Your task to perform on an android device: make emails show in primary in the gmail app Image 0: 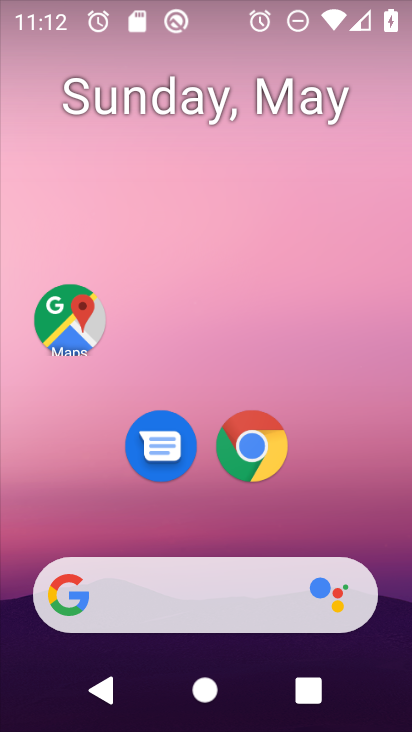
Step 0: drag from (365, 491) to (240, 17)
Your task to perform on an android device: make emails show in primary in the gmail app Image 1: 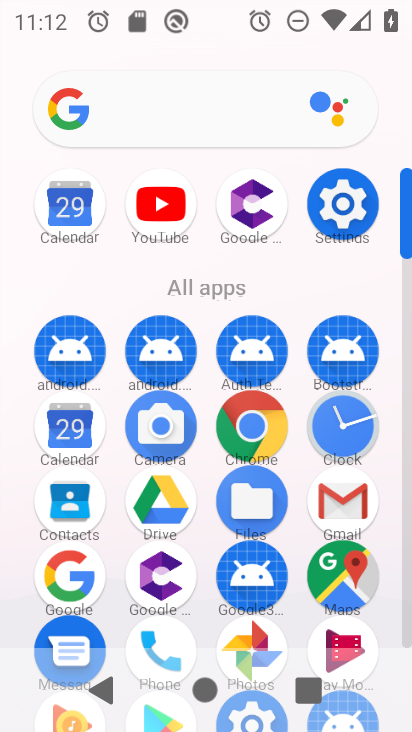
Step 1: drag from (16, 574) to (25, 180)
Your task to perform on an android device: make emails show in primary in the gmail app Image 2: 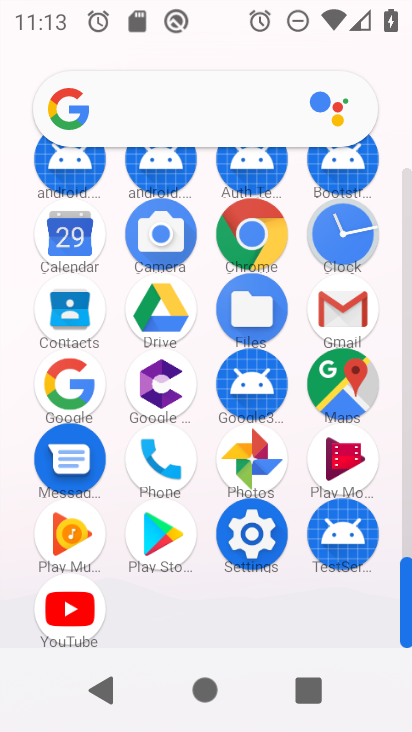
Step 2: click (341, 302)
Your task to perform on an android device: make emails show in primary in the gmail app Image 3: 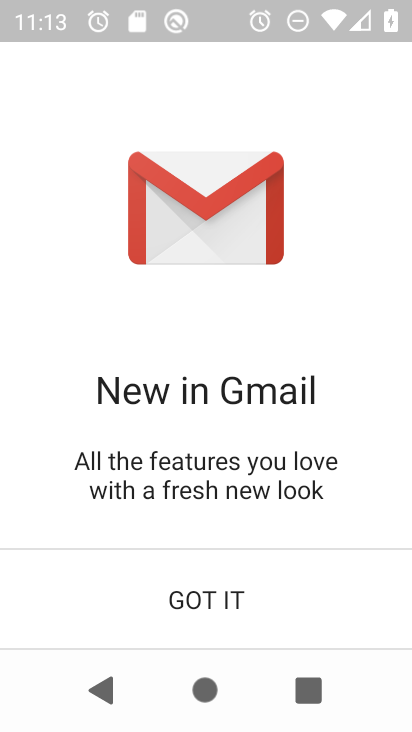
Step 3: click (211, 600)
Your task to perform on an android device: make emails show in primary in the gmail app Image 4: 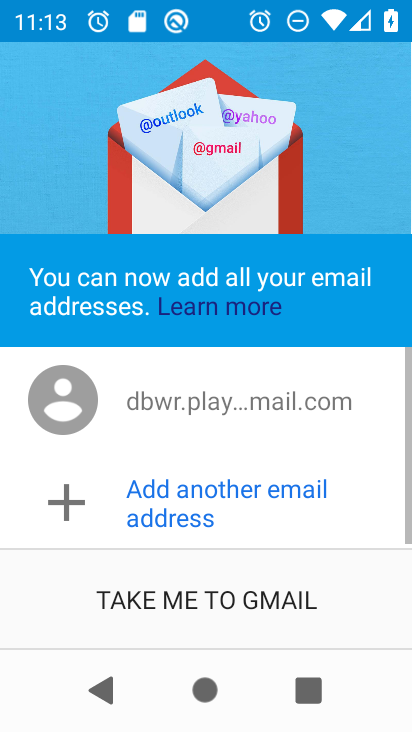
Step 4: click (211, 600)
Your task to perform on an android device: make emails show in primary in the gmail app Image 5: 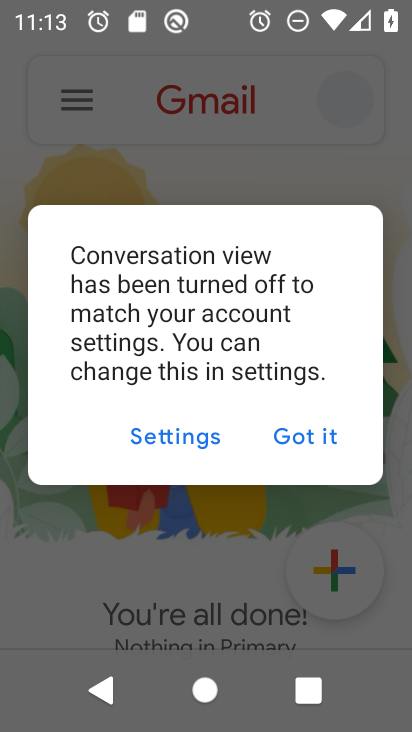
Step 5: click (306, 442)
Your task to perform on an android device: make emails show in primary in the gmail app Image 6: 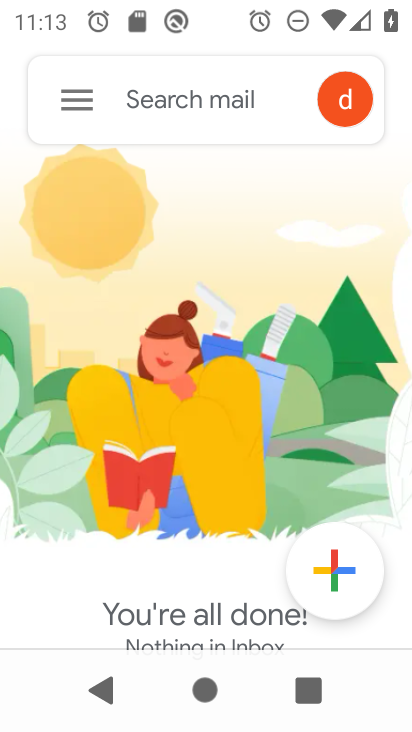
Step 6: click (68, 89)
Your task to perform on an android device: make emails show in primary in the gmail app Image 7: 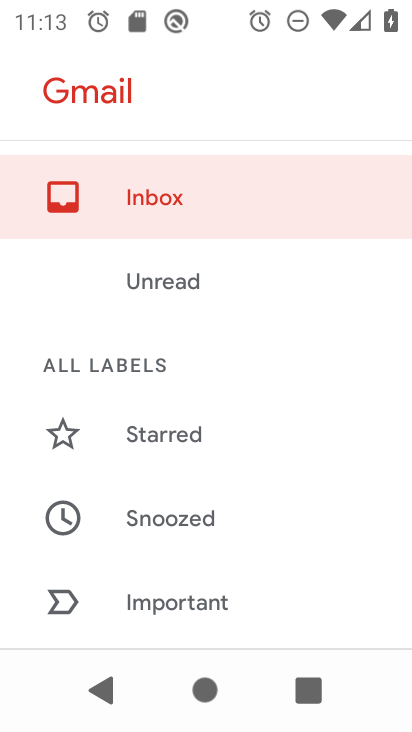
Step 7: drag from (229, 594) to (266, 146)
Your task to perform on an android device: make emails show in primary in the gmail app Image 8: 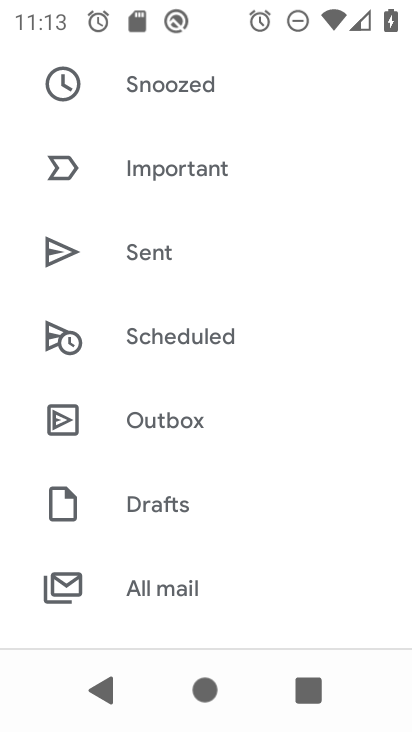
Step 8: drag from (247, 538) to (255, 156)
Your task to perform on an android device: make emails show in primary in the gmail app Image 9: 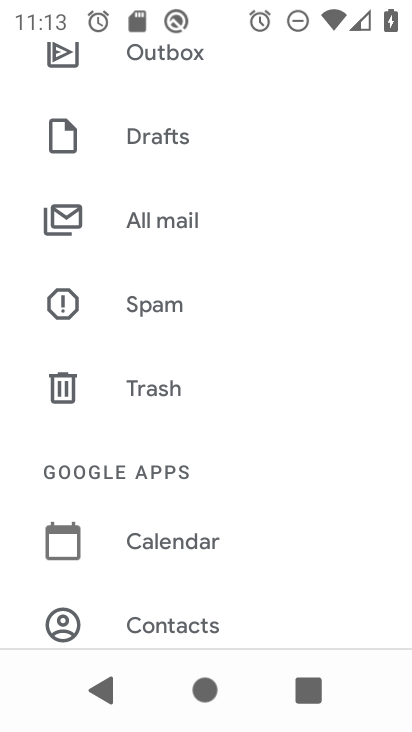
Step 9: drag from (232, 526) to (254, 121)
Your task to perform on an android device: make emails show in primary in the gmail app Image 10: 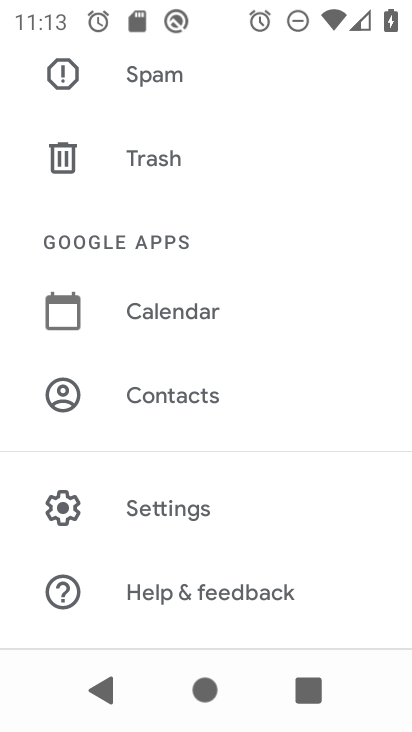
Step 10: drag from (224, 441) to (233, 135)
Your task to perform on an android device: make emails show in primary in the gmail app Image 11: 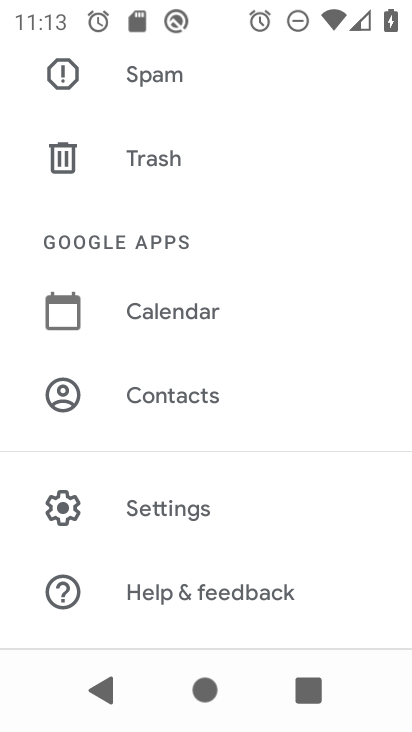
Step 11: drag from (306, 457) to (300, 95)
Your task to perform on an android device: make emails show in primary in the gmail app Image 12: 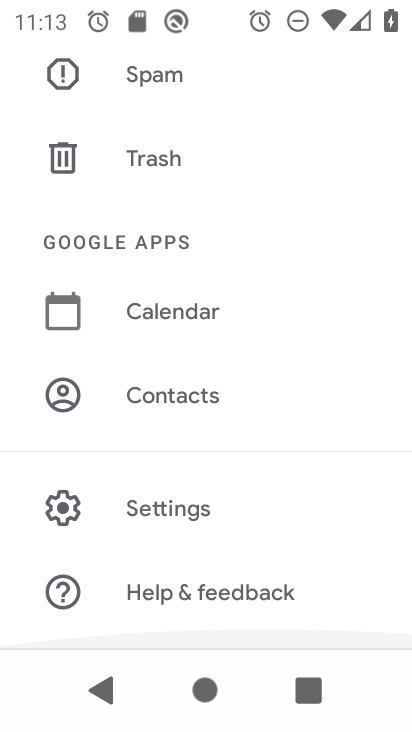
Step 12: drag from (283, 220) to (289, 613)
Your task to perform on an android device: make emails show in primary in the gmail app Image 13: 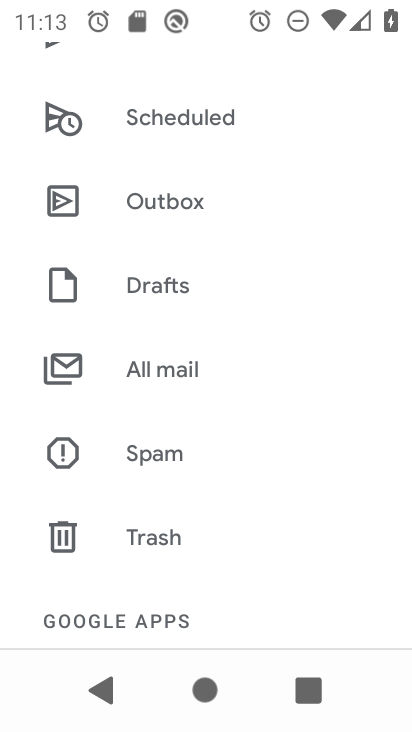
Step 13: drag from (255, 458) to (259, 59)
Your task to perform on an android device: make emails show in primary in the gmail app Image 14: 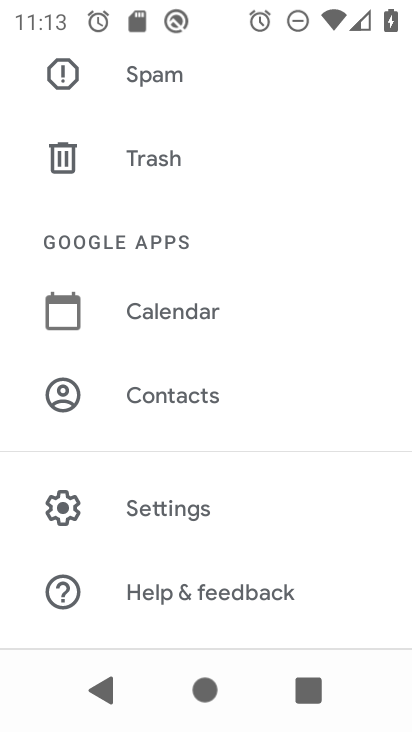
Step 14: click (162, 509)
Your task to perform on an android device: make emails show in primary in the gmail app Image 15: 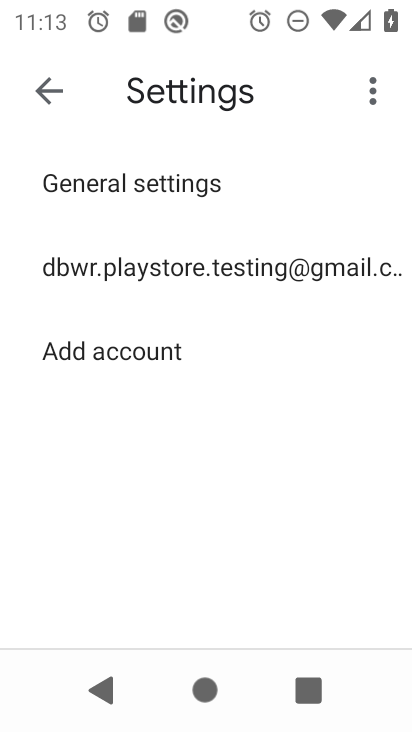
Step 15: click (155, 276)
Your task to perform on an android device: make emails show in primary in the gmail app Image 16: 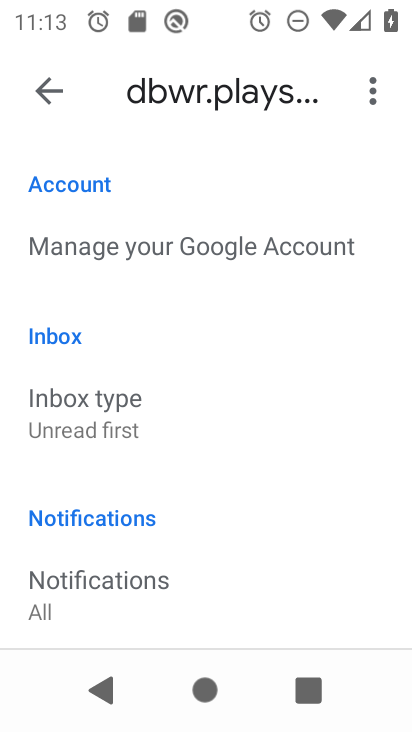
Step 16: click (155, 409)
Your task to perform on an android device: make emails show in primary in the gmail app Image 17: 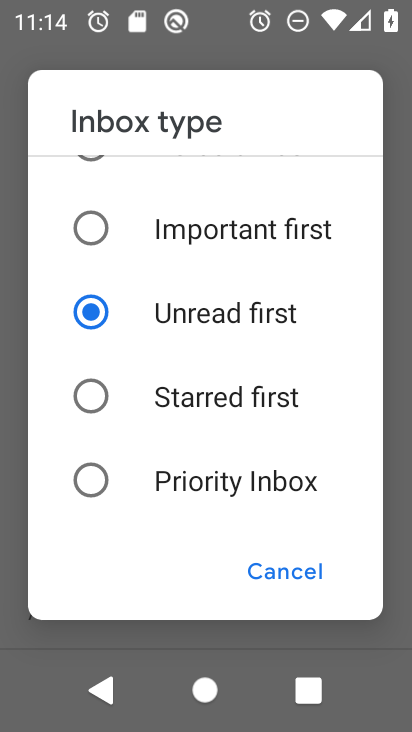
Step 17: click (206, 202)
Your task to perform on an android device: make emails show in primary in the gmail app Image 18: 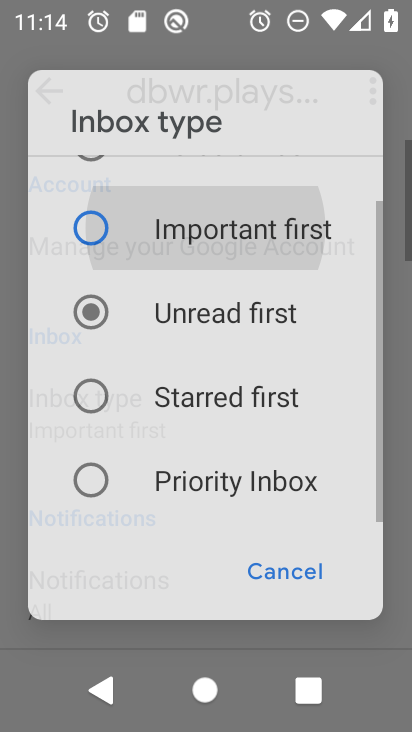
Step 18: click (208, 544)
Your task to perform on an android device: make emails show in primary in the gmail app Image 19: 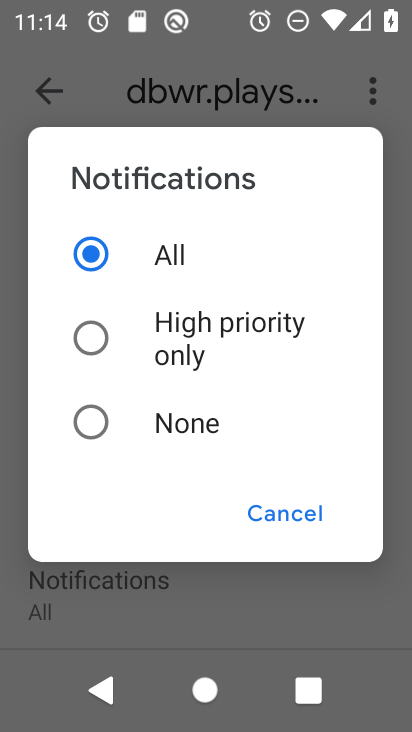
Step 19: click (268, 507)
Your task to perform on an android device: make emails show in primary in the gmail app Image 20: 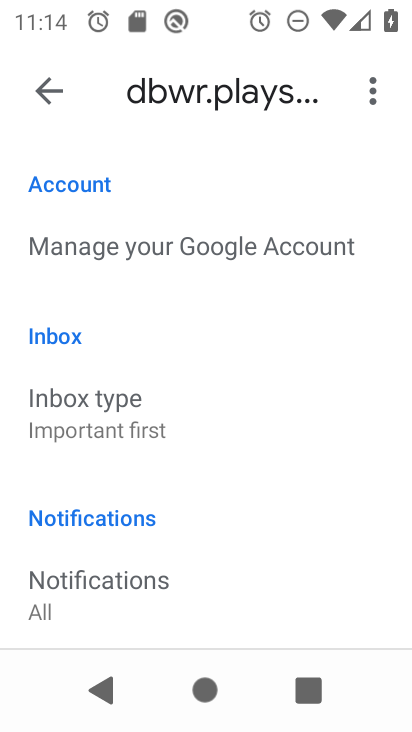
Step 20: click (116, 402)
Your task to perform on an android device: make emails show in primary in the gmail app Image 21: 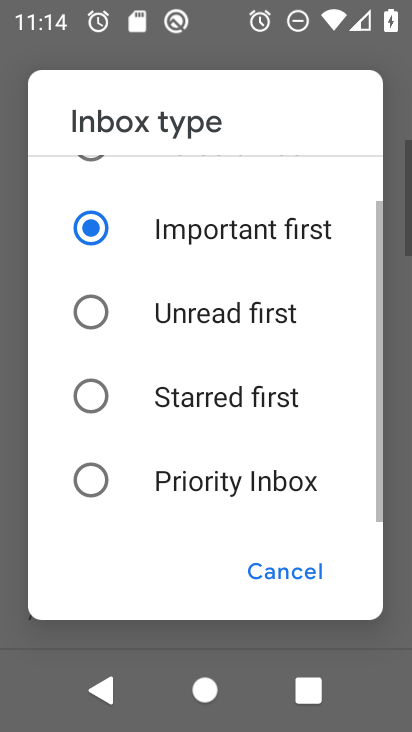
Step 21: drag from (243, 243) to (236, 548)
Your task to perform on an android device: make emails show in primary in the gmail app Image 22: 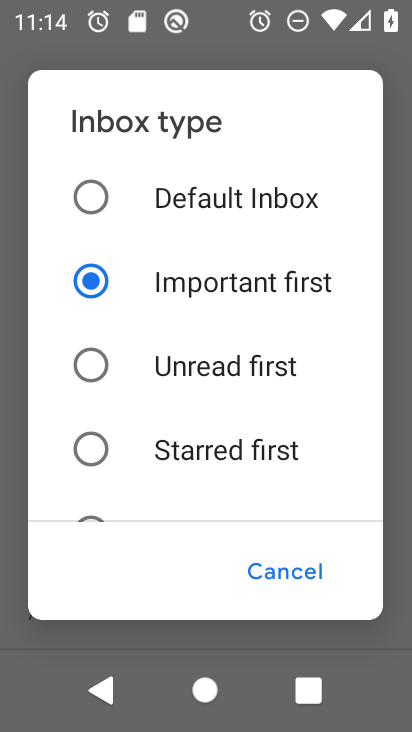
Step 22: click (206, 197)
Your task to perform on an android device: make emails show in primary in the gmail app Image 23: 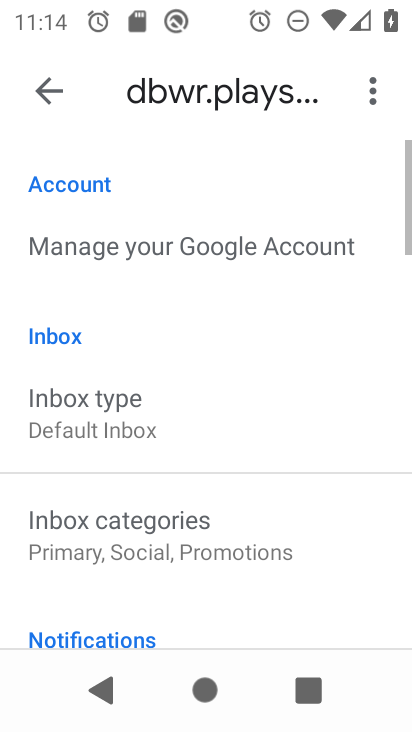
Step 23: click (156, 535)
Your task to perform on an android device: make emails show in primary in the gmail app Image 24: 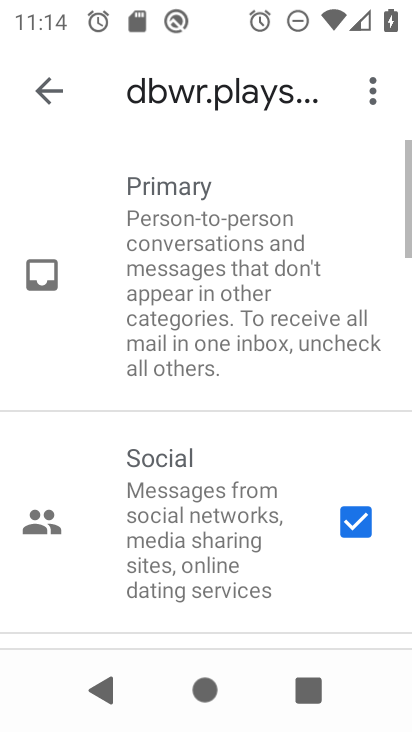
Step 24: click (356, 540)
Your task to perform on an android device: make emails show in primary in the gmail app Image 25: 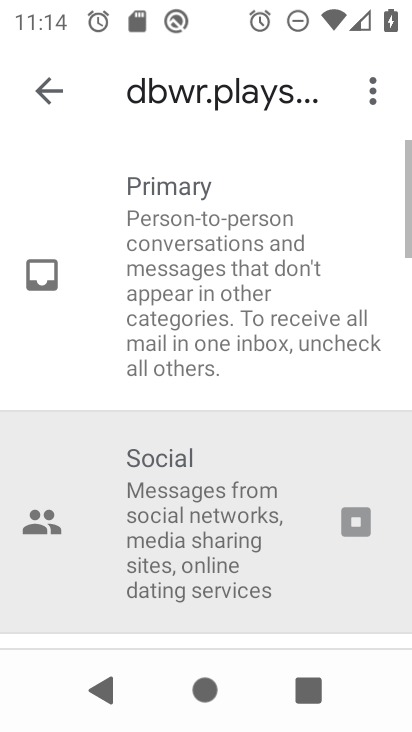
Step 25: drag from (228, 561) to (226, 123)
Your task to perform on an android device: make emails show in primary in the gmail app Image 26: 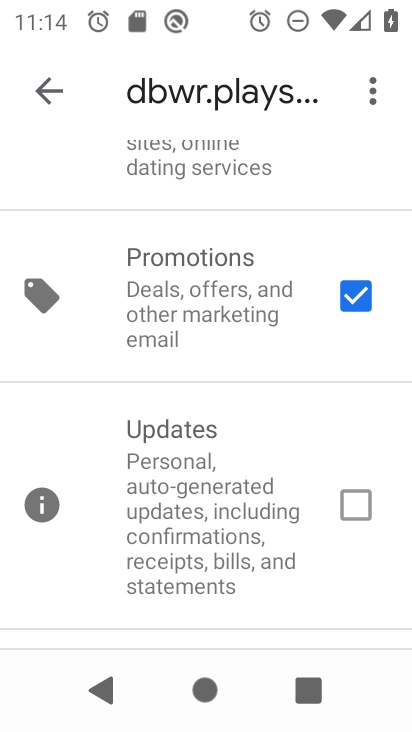
Step 26: click (341, 299)
Your task to perform on an android device: make emails show in primary in the gmail app Image 27: 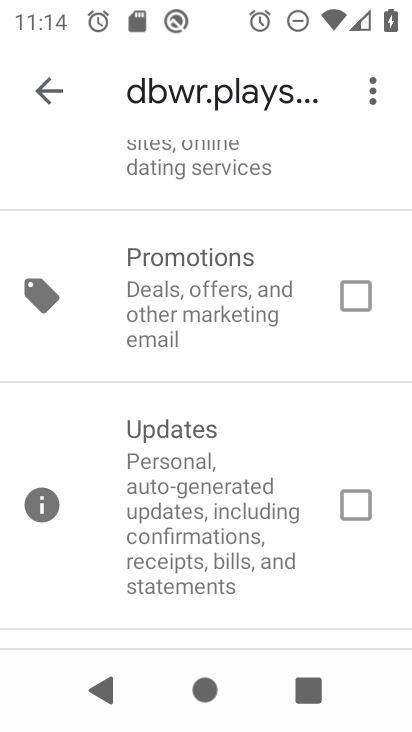
Step 27: drag from (176, 260) to (212, 618)
Your task to perform on an android device: make emails show in primary in the gmail app Image 28: 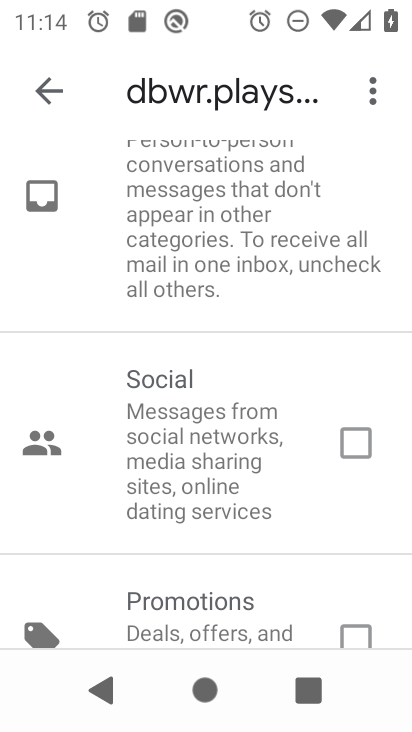
Step 28: drag from (263, 171) to (263, 499)
Your task to perform on an android device: make emails show in primary in the gmail app Image 29: 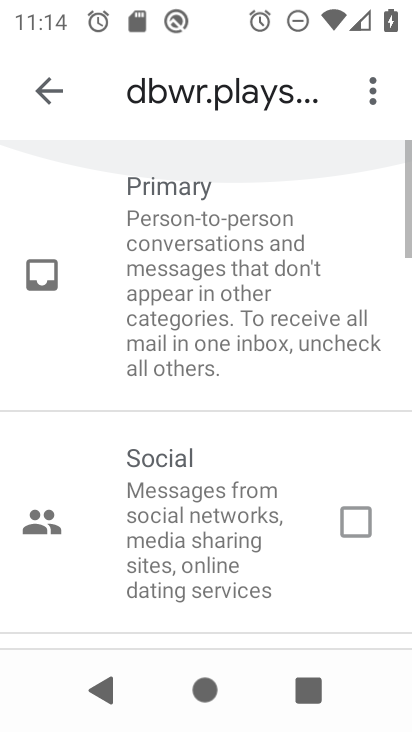
Step 29: click (263, 549)
Your task to perform on an android device: make emails show in primary in the gmail app Image 30: 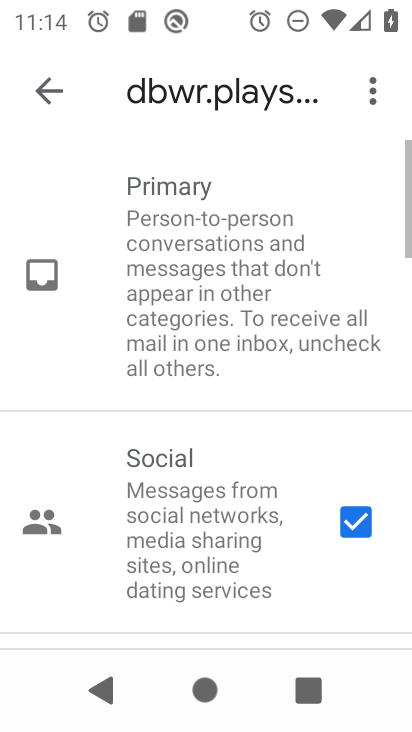
Step 30: click (340, 521)
Your task to perform on an android device: make emails show in primary in the gmail app Image 31: 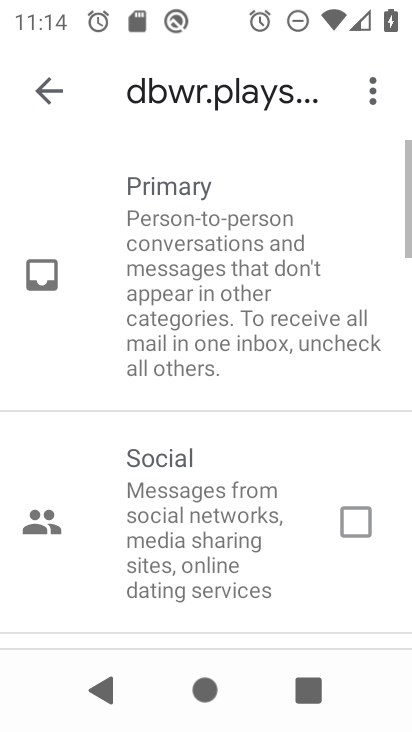
Step 31: drag from (218, 545) to (262, 146)
Your task to perform on an android device: make emails show in primary in the gmail app Image 32: 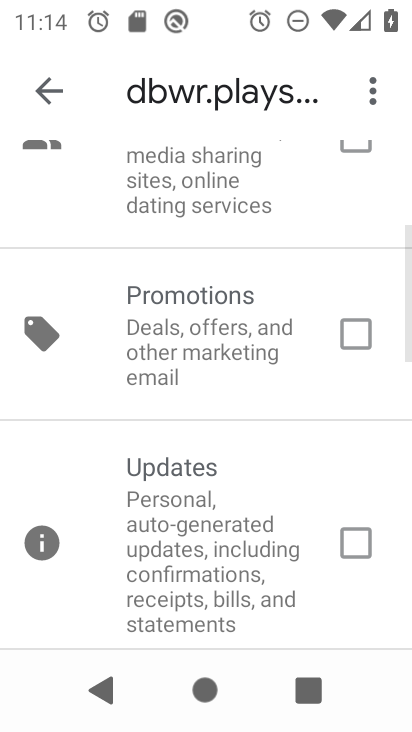
Step 32: drag from (233, 370) to (237, 140)
Your task to perform on an android device: make emails show in primary in the gmail app Image 33: 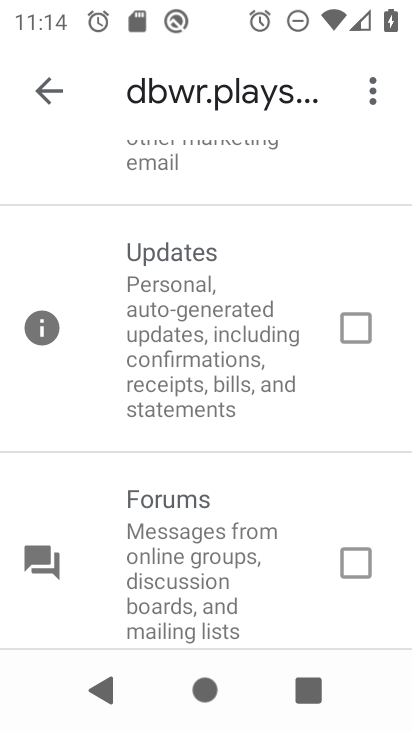
Step 33: drag from (244, 540) to (254, 151)
Your task to perform on an android device: make emails show in primary in the gmail app Image 34: 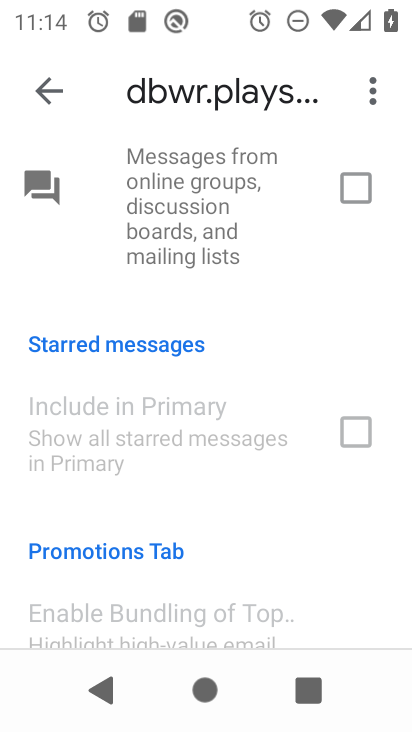
Step 34: drag from (274, 467) to (258, 168)
Your task to perform on an android device: make emails show in primary in the gmail app Image 35: 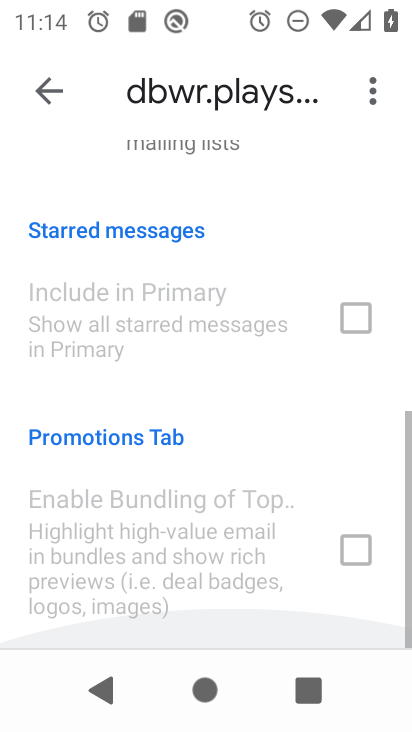
Step 35: drag from (254, 148) to (249, 536)
Your task to perform on an android device: make emails show in primary in the gmail app Image 36: 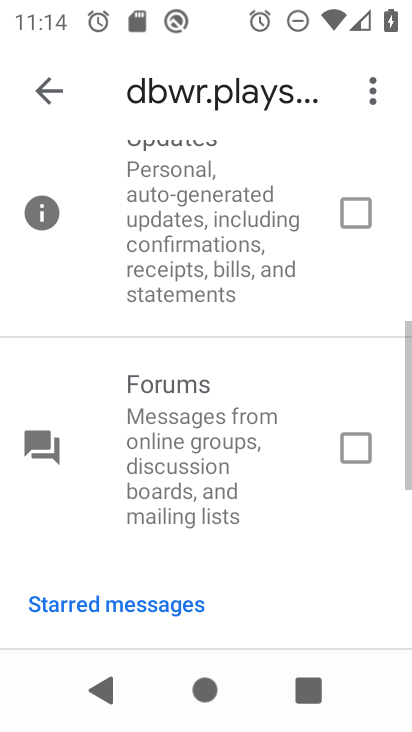
Step 36: drag from (269, 239) to (258, 583)
Your task to perform on an android device: make emails show in primary in the gmail app Image 37: 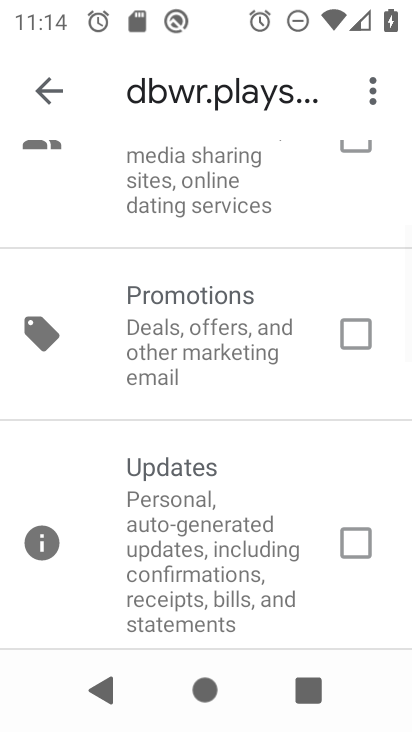
Step 37: drag from (248, 241) to (223, 534)
Your task to perform on an android device: make emails show in primary in the gmail app Image 38: 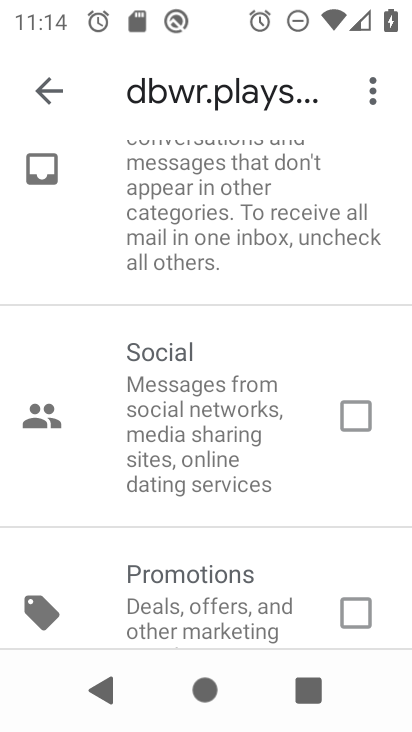
Step 38: drag from (257, 239) to (268, 563)
Your task to perform on an android device: make emails show in primary in the gmail app Image 39: 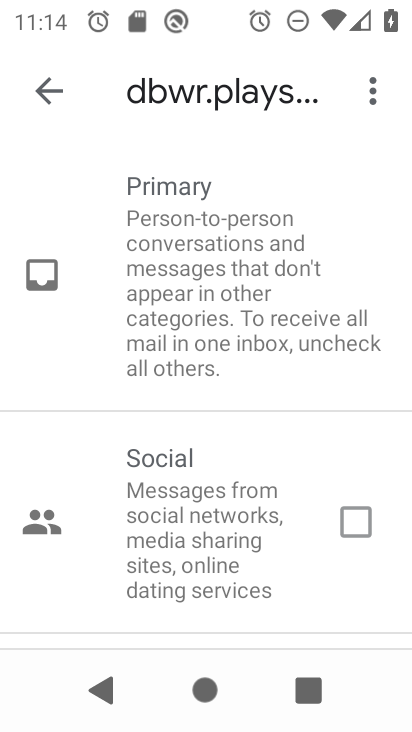
Step 39: click (43, 85)
Your task to perform on an android device: make emails show in primary in the gmail app Image 40: 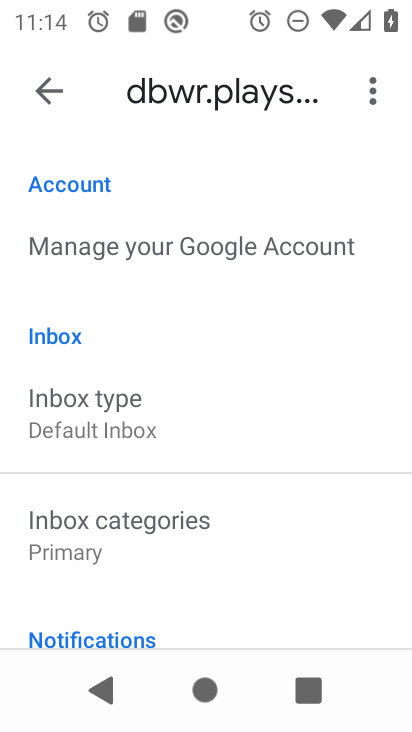
Step 40: task complete